Your task to perform on an android device: Open accessibility settings Image 0: 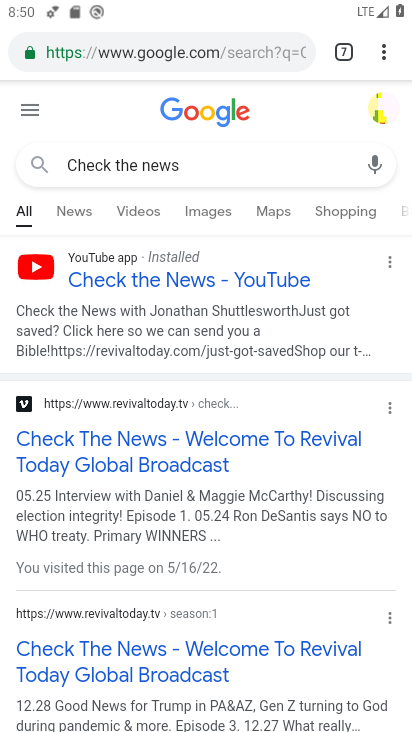
Step 0: press home button
Your task to perform on an android device: Open accessibility settings Image 1: 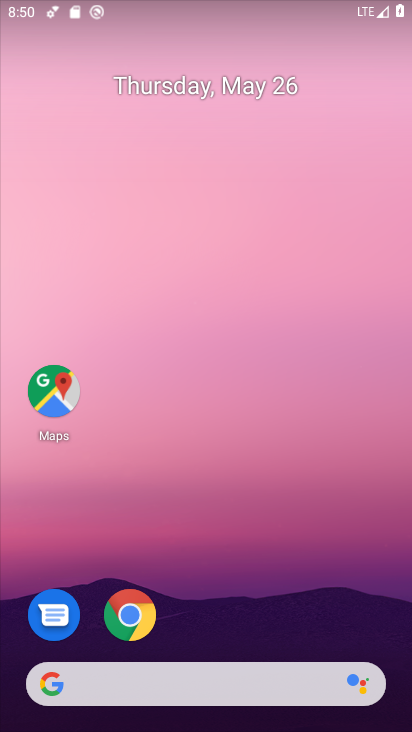
Step 1: drag from (197, 603) to (260, 204)
Your task to perform on an android device: Open accessibility settings Image 2: 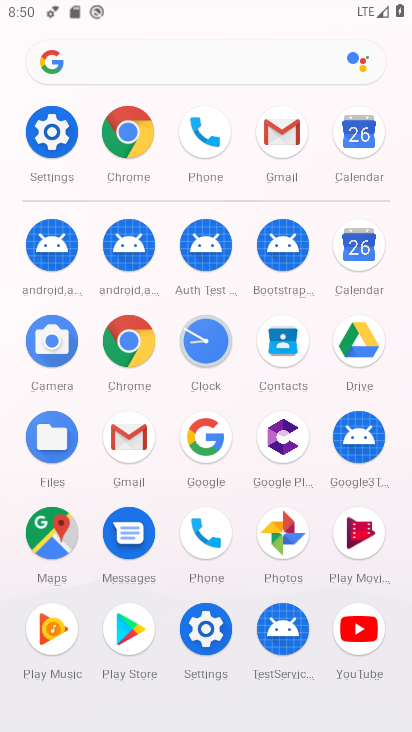
Step 2: click (46, 124)
Your task to perform on an android device: Open accessibility settings Image 3: 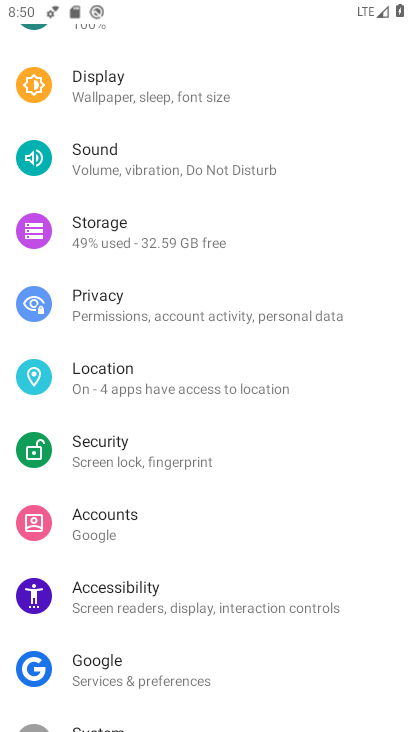
Step 3: click (151, 598)
Your task to perform on an android device: Open accessibility settings Image 4: 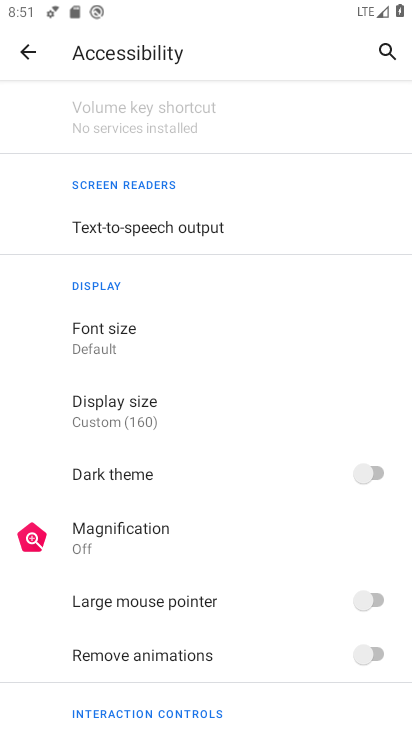
Step 4: task complete